Your task to perform on an android device: turn on improve location accuracy Image 0: 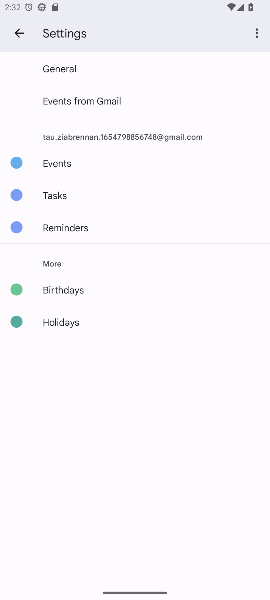
Step 0: press home button
Your task to perform on an android device: turn on improve location accuracy Image 1: 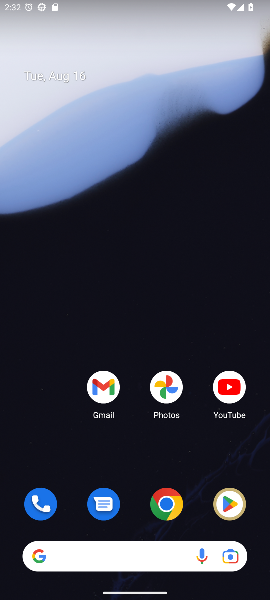
Step 1: drag from (127, 481) to (134, 75)
Your task to perform on an android device: turn on improve location accuracy Image 2: 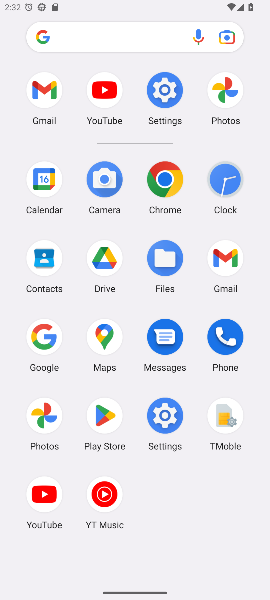
Step 2: click (165, 91)
Your task to perform on an android device: turn on improve location accuracy Image 3: 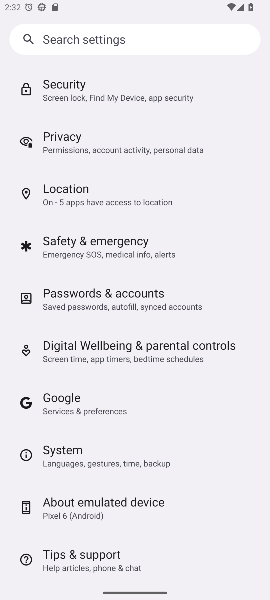
Step 3: click (62, 190)
Your task to perform on an android device: turn on improve location accuracy Image 4: 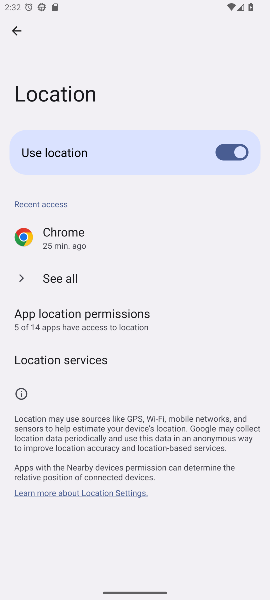
Step 4: click (51, 355)
Your task to perform on an android device: turn on improve location accuracy Image 5: 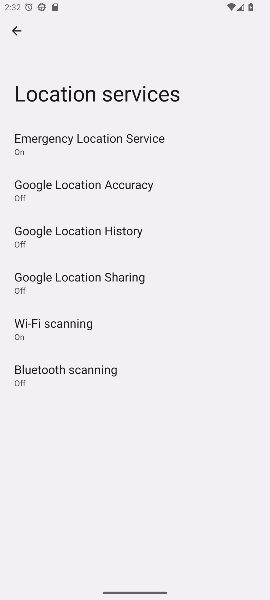
Step 5: click (81, 179)
Your task to perform on an android device: turn on improve location accuracy Image 6: 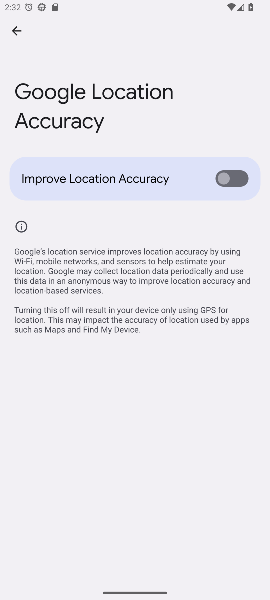
Step 6: click (226, 177)
Your task to perform on an android device: turn on improve location accuracy Image 7: 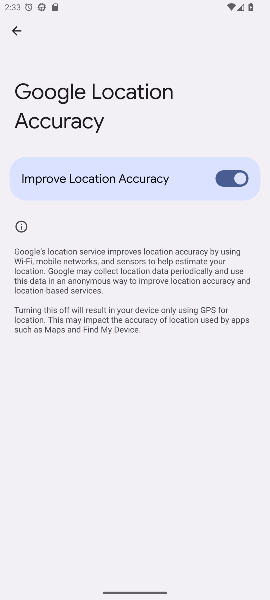
Step 7: task complete